Your task to perform on an android device: Open Chrome and go to the settings page Image 0: 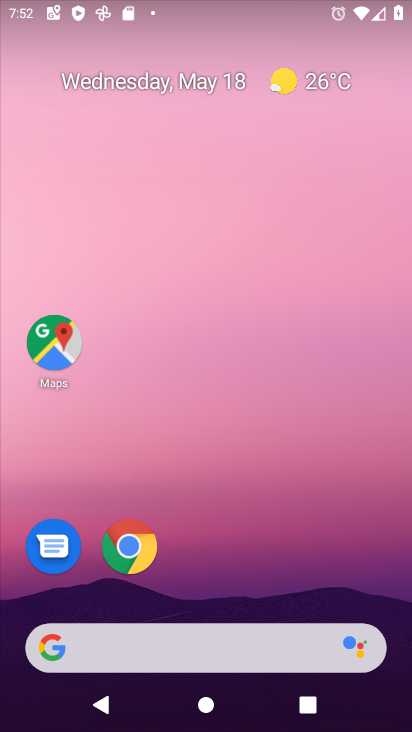
Step 0: drag from (392, 614) to (349, 21)
Your task to perform on an android device: Open Chrome and go to the settings page Image 1: 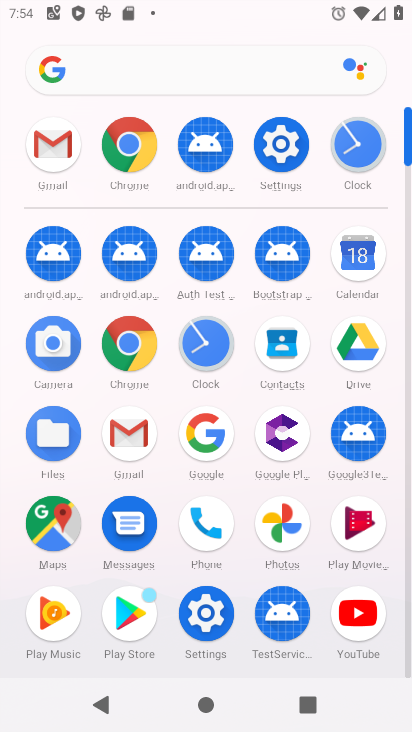
Step 1: click (148, 351)
Your task to perform on an android device: Open Chrome and go to the settings page Image 2: 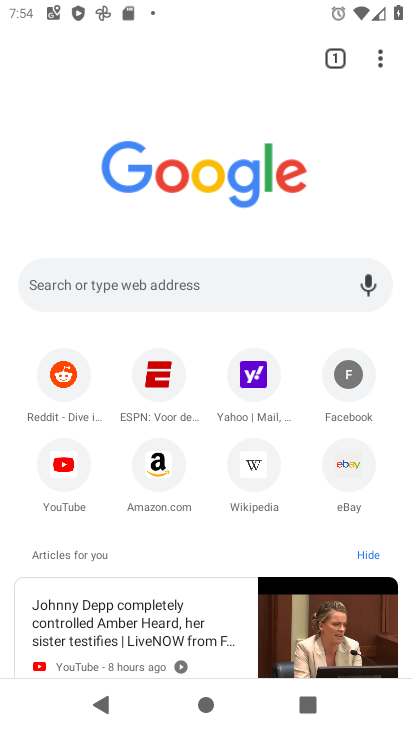
Step 2: click (373, 49)
Your task to perform on an android device: Open Chrome and go to the settings page Image 3: 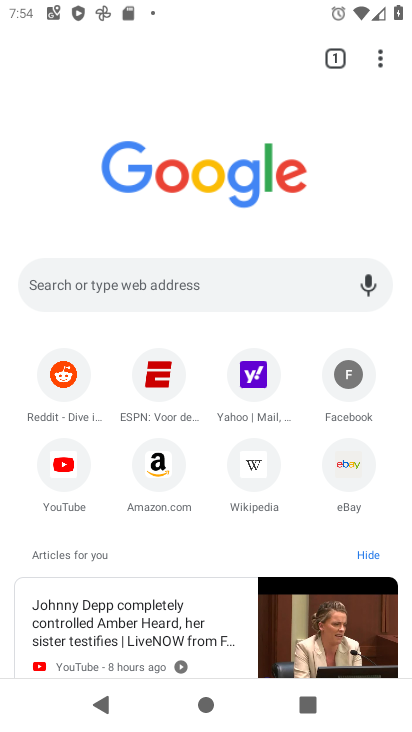
Step 3: click (379, 53)
Your task to perform on an android device: Open Chrome and go to the settings page Image 4: 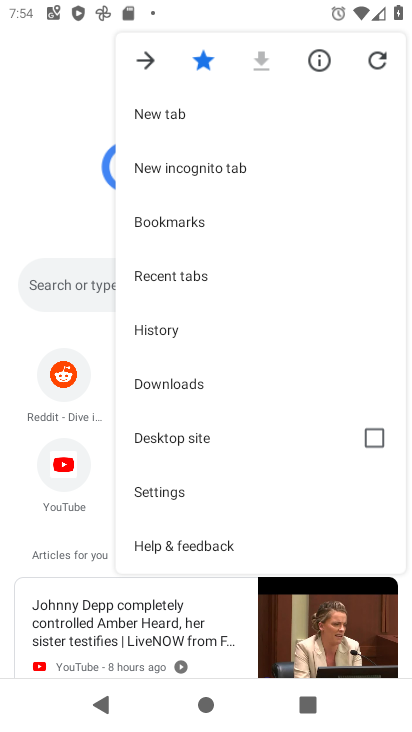
Step 4: click (215, 499)
Your task to perform on an android device: Open Chrome and go to the settings page Image 5: 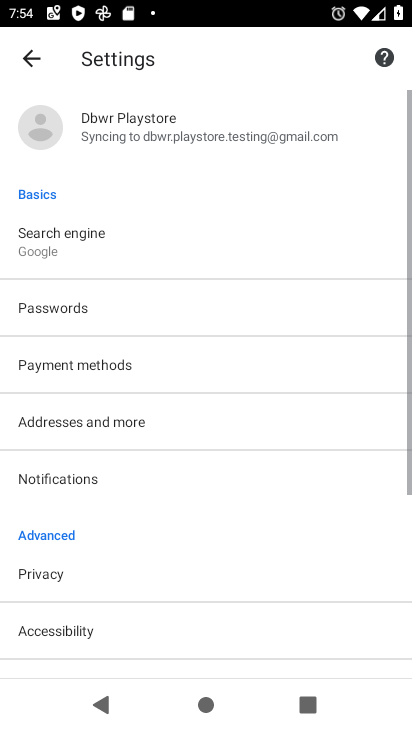
Step 5: task complete